Your task to perform on an android device: clear history in the chrome app Image 0: 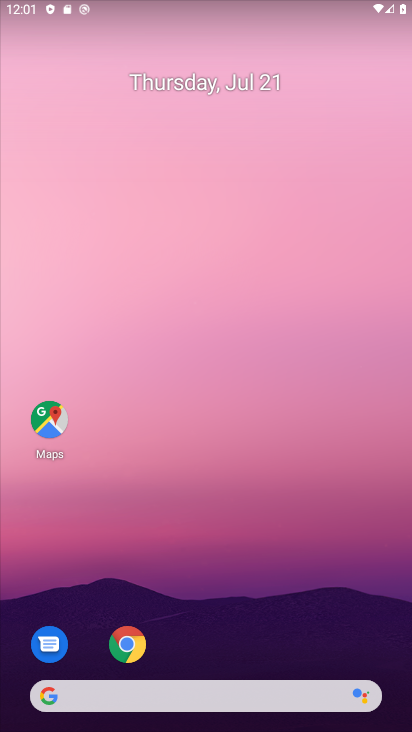
Step 0: press home button
Your task to perform on an android device: clear history in the chrome app Image 1: 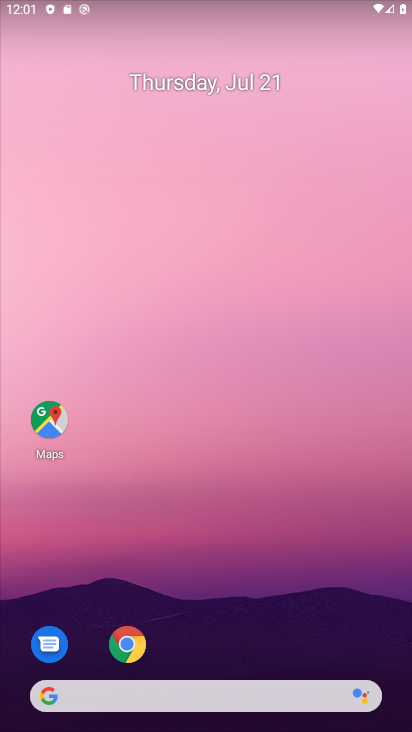
Step 1: drag from (254, 616) to (215, 58)
Your task to perform on an android device: clear history in the chrome app Image 2: 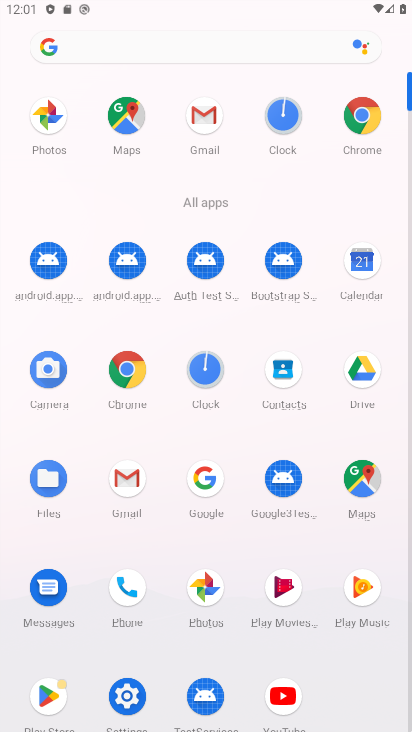
Step 2: click (346, 136)
Your task to perform on an android device: clear history in the chrome app Image 3: 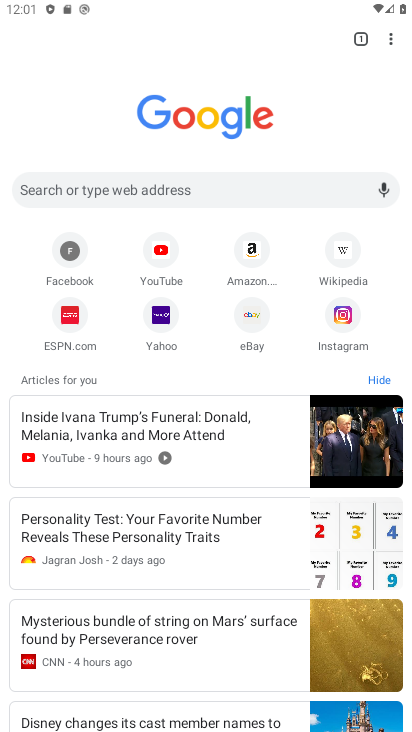
Step 3: drag from (395, 50) to (241, 214)
Your task to perform on an android device: clear history in the chrome app Image 4: 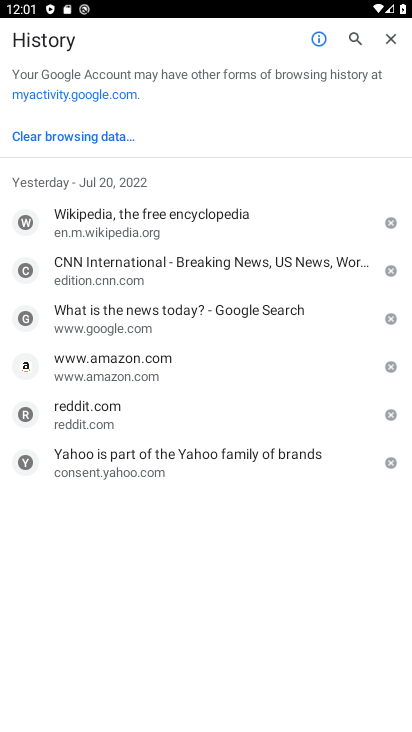
Step 4: click (22, 128)
Your task to perform on an android device: clear history in the chrome app Image 5: 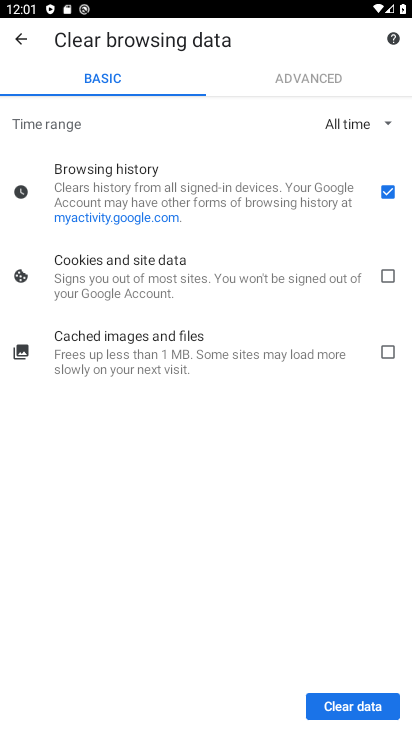
Step 5: click (381, 716)
Your task to perform on an android device: clear history in the chrome app Image 6: 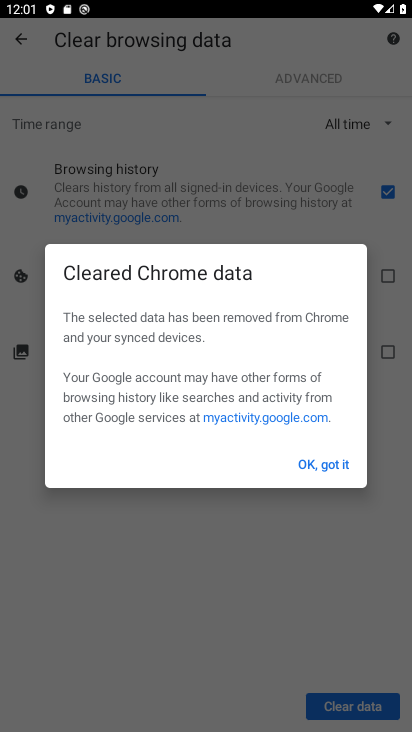
Step 6: click (305, 453)
Your task to perform on an android device: clear history in the chrome app Image 7: 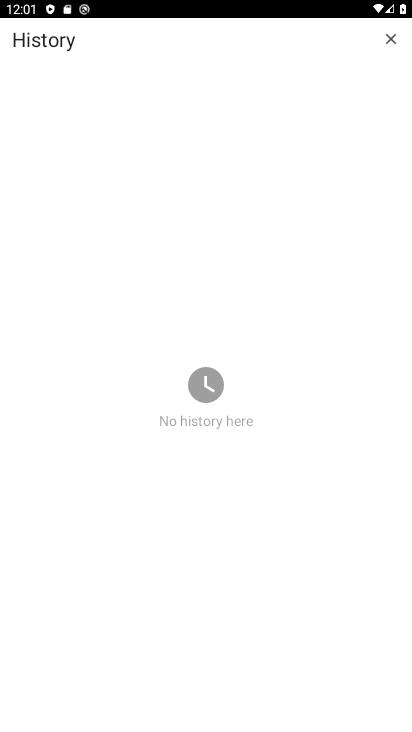
Step 7: task complete